Your task to perform on an android device: delete a single message in the gmail app Image 0: 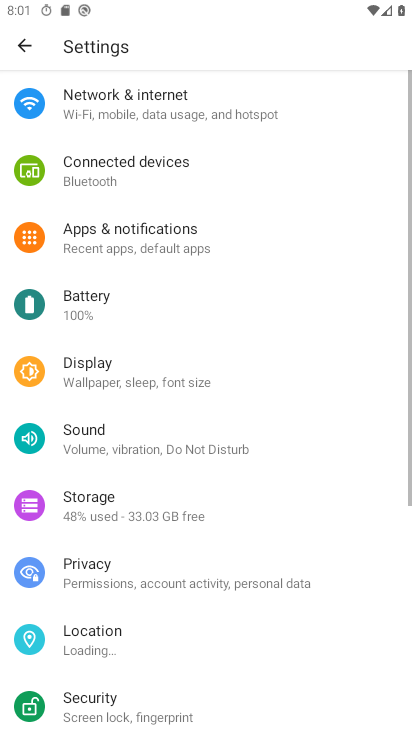
Step 0: press home button
Your task to perform on an android device: delete a single message in the gmail app Image 1: 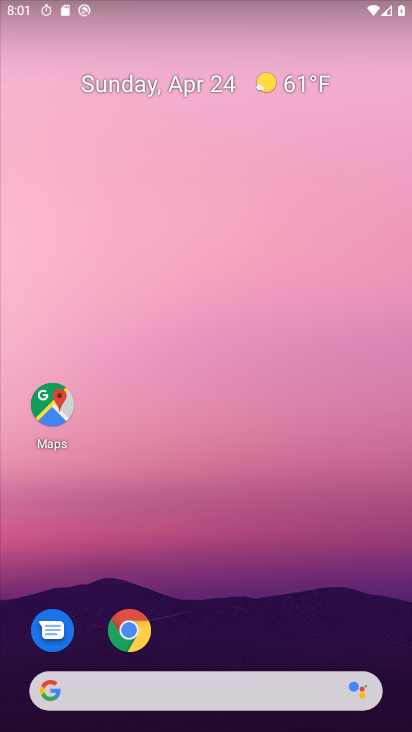
Step 1: drag from (338, 612) to (337, 44)
Your task to perform on an android device: delete a single message in the gmail app Image 2: 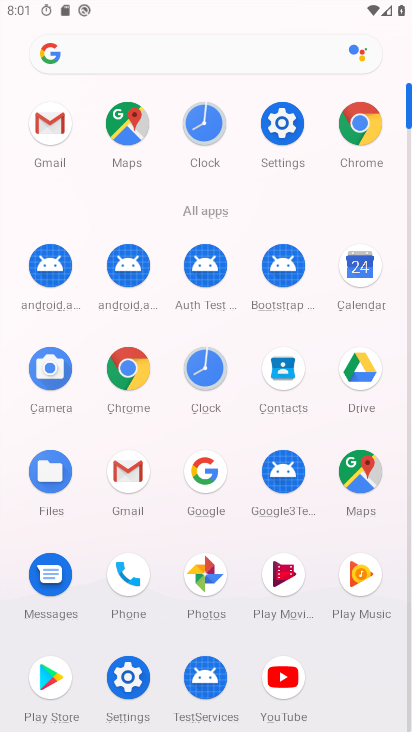
Step 2: click (111, 469)
Your task to perform on an android device: delete a single message in the gmail app Image 3: 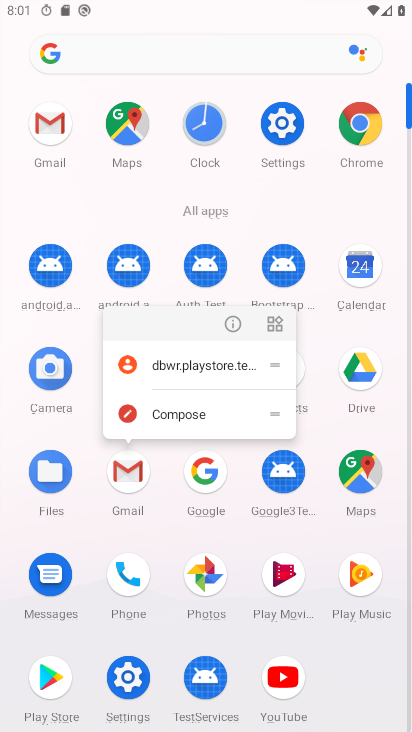
Step 3: click (128, 475)
Your task to perform on an android device: delete a single message in the gmail app Image 4: 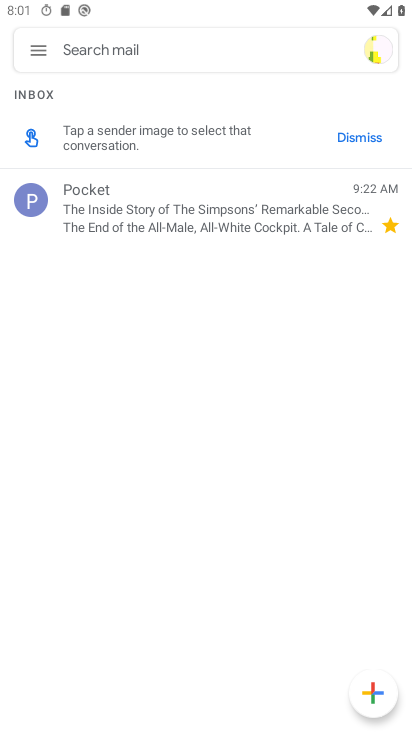
Step 4: click (246, 219)
Your task to perform on an android device: delete a single message in the gmail app Image 5: 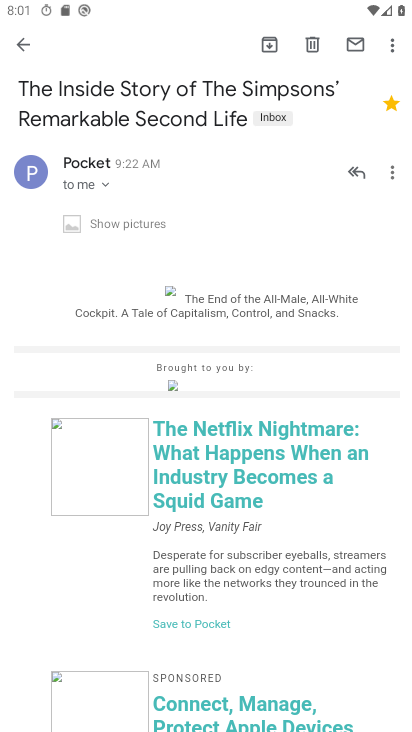
Step 5: click (311, 41)
Your task to perform on an android device: delete a single message in the gmail app Image 6: 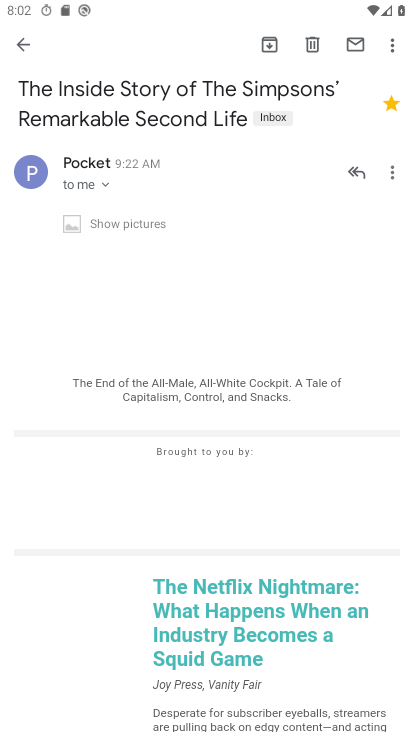
Step 6: click (309, 43)
Your task to perform on an android device: delete a single message in the gmail app Image 7: 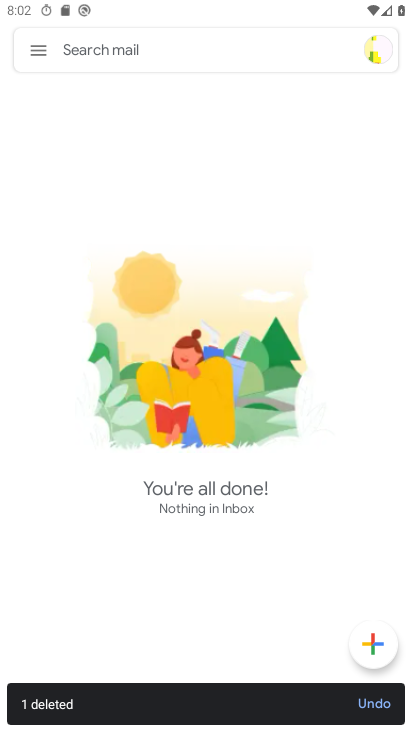
Step 7: task complete